Your task to perform on an android device: Go to sound settings Image 0: 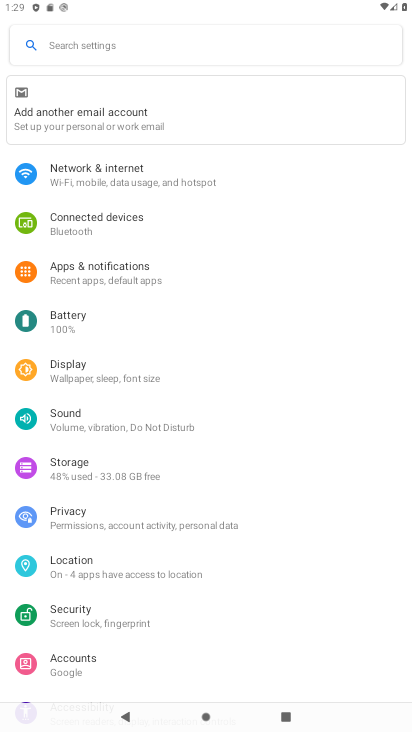
Step 0: click (77, 422)
Your task to perform on an android device: Go to sound settings Image 1: 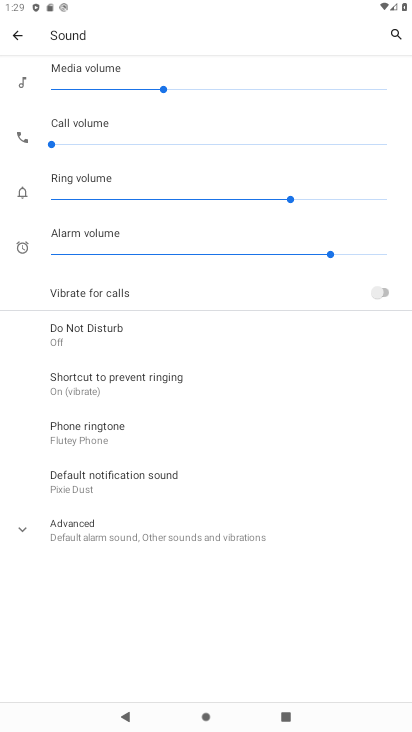
Step 1: task complete